Your task to perform on an android device: see sites visited before in the chrome app Image 0: 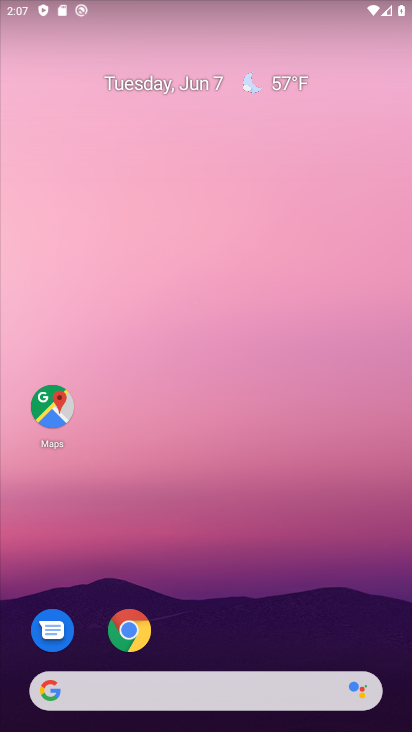
Step 0: click (130, 628)
Your task to perform on an android device: see sites visited before in the chrome app Image 1: 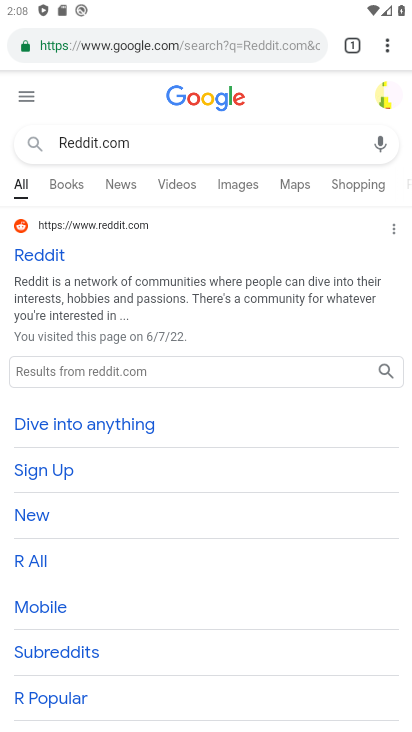
Step 1: click (381, 50)
Your task to perform on an android device: see sites visited before in the chrome app Image 2: 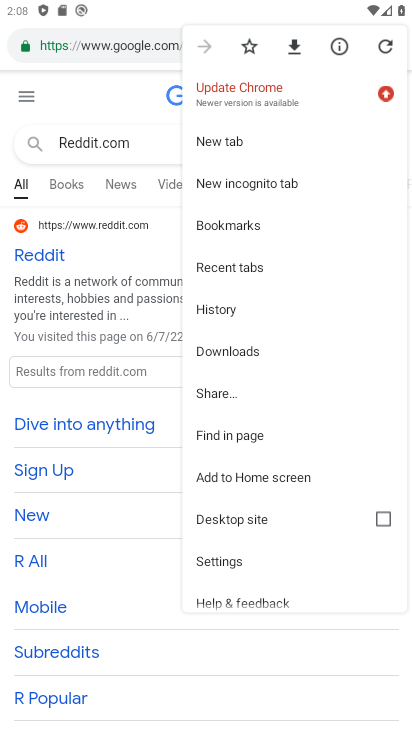
Step 2: click (212, 255)
Your task to perform on an android device: see sites visited before in the chrome app Image 3: 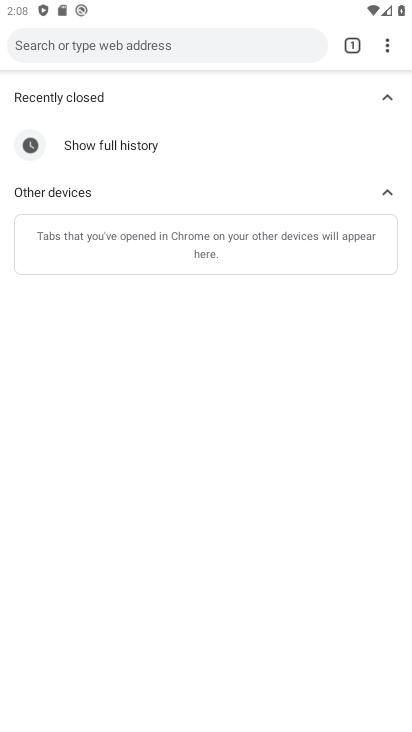
Step 3: task complete